Your task to perform on an android device: toggle location history Image 0: 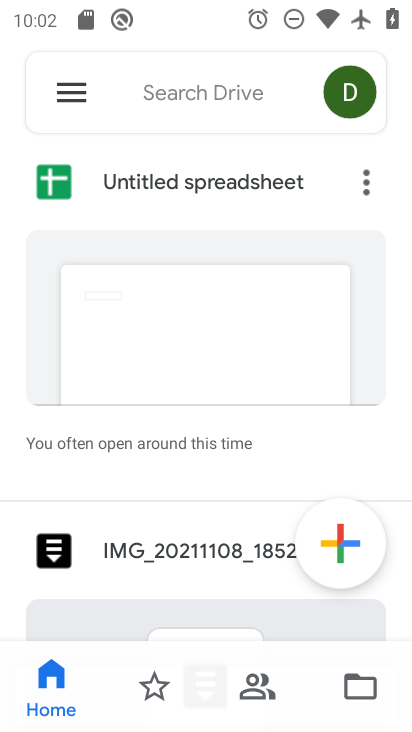
Step 0: press home button
Your task to perform on an android device: toggle location history Image 1: 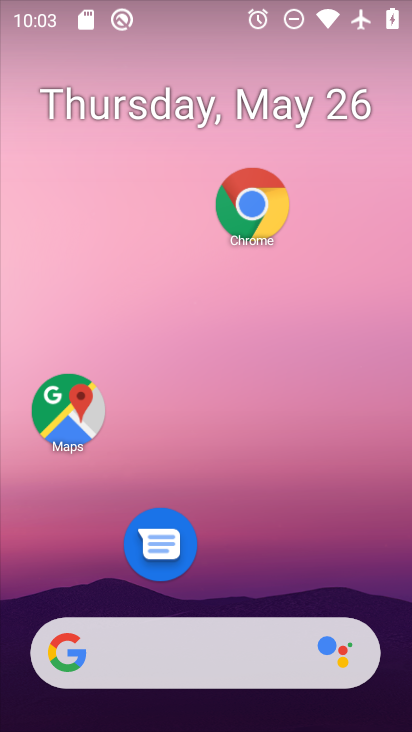
Step 1: drag from (216, 595) to (251, 44)
Your task to perform on an android device: toggle location history Image 2: 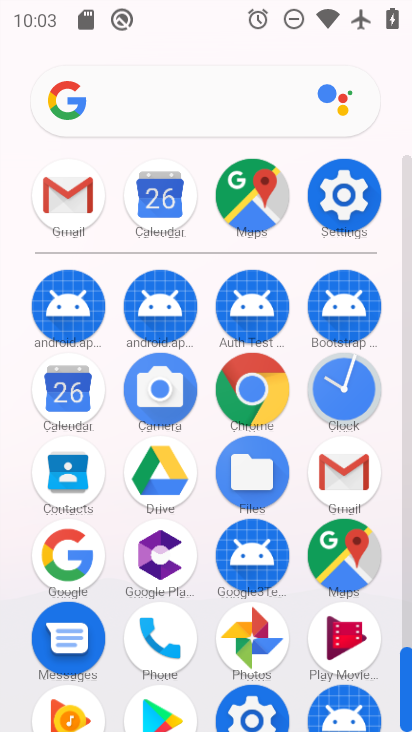
Step 2: click (344, 188)
Your task to perform on an android device: toggle location history Image 3: 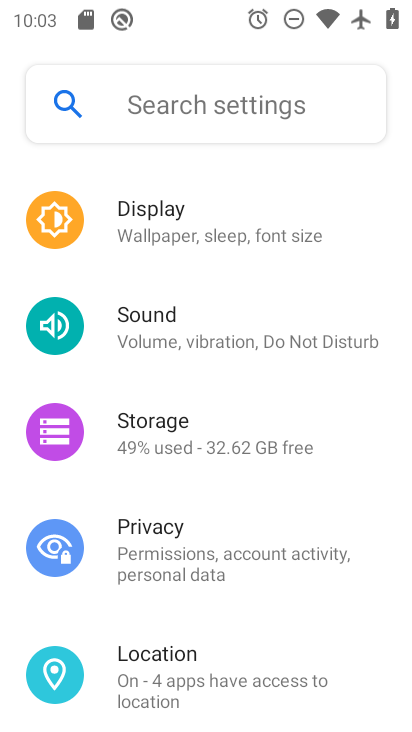
Step 3: click (220, 655)
Your task to perform on an android device: toggle location history Image 4: 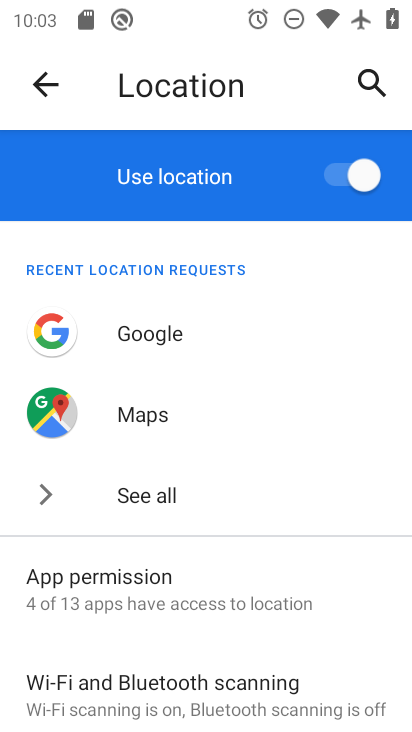
Step 4: drag from (225, 691) to (206, 193)
Your task to perform on an android device: toggle location history Image 5: 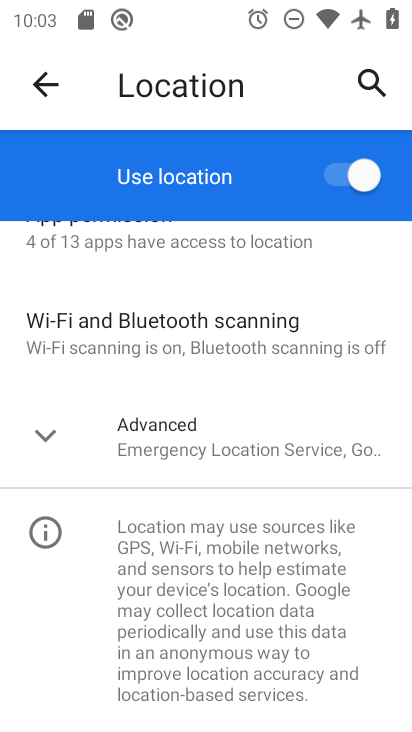
Step 5: click (51, 436)
Your task to perform on an android device: toggle location history Image 6: 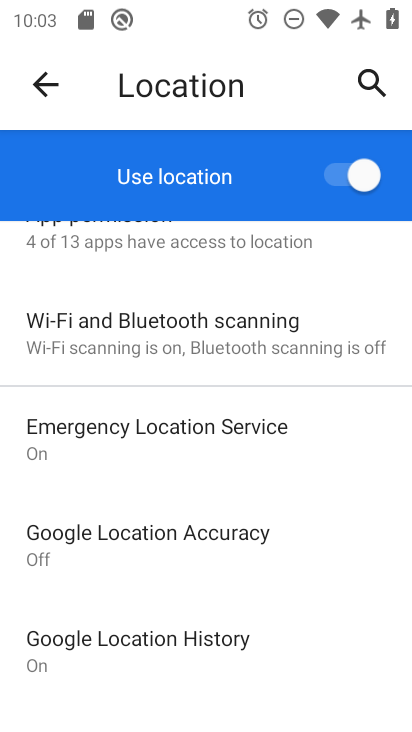
Step 6: click (103, 651)
Your task to perform on an android device: toggle location history Image 7: 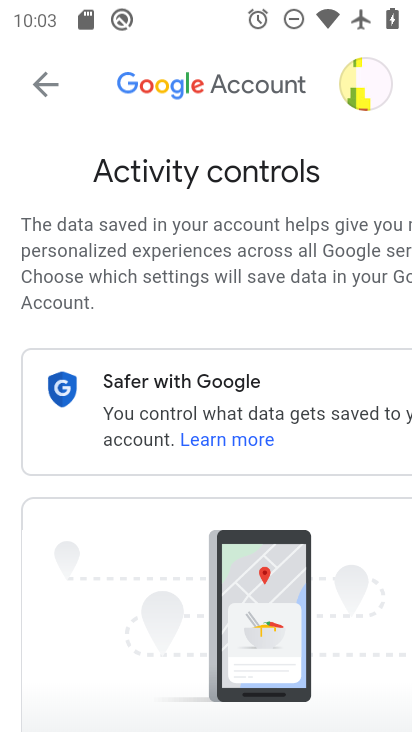
Step 7: drag from (155, 645) to (191, 210)
Your task to perform on an android device: toggle location history Image 8: 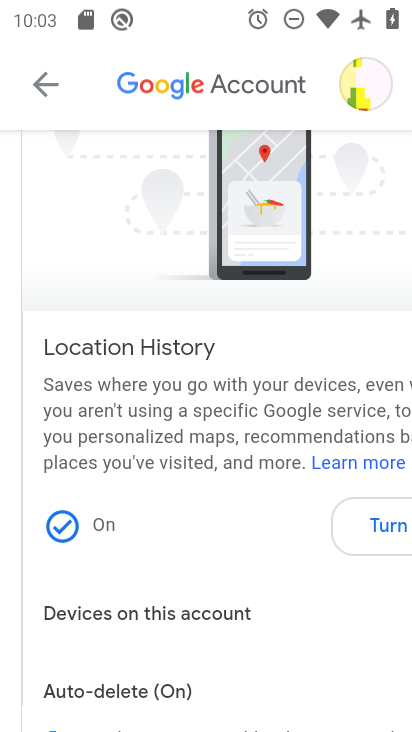
Step 8: click (388, 522)
Your task to perform on an android device: toggle location history Image 9: 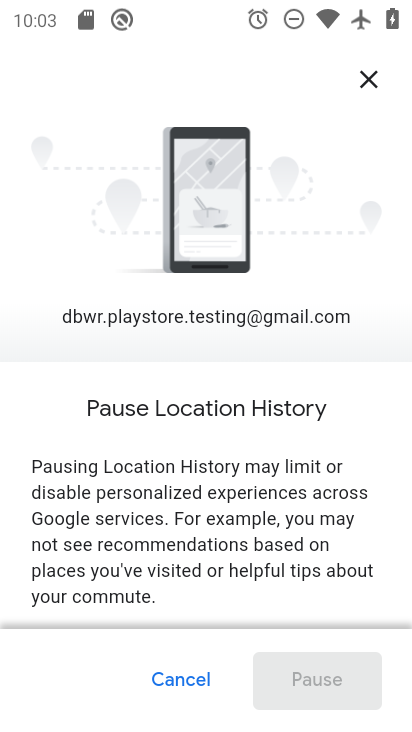
Step 9: drag from (296, 569) to (296, 93)
Your task to perform on an android device: toggle location history Image 10: 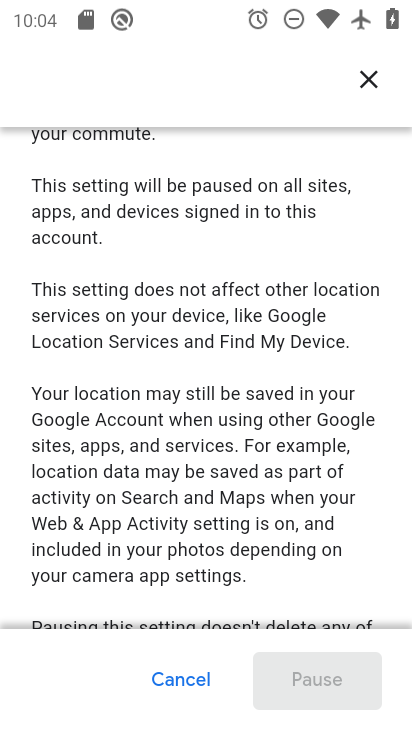
Step 10: drag from (262, 562) to (277, 110)
Your task to perform on an android device: toggle location history Image 11: 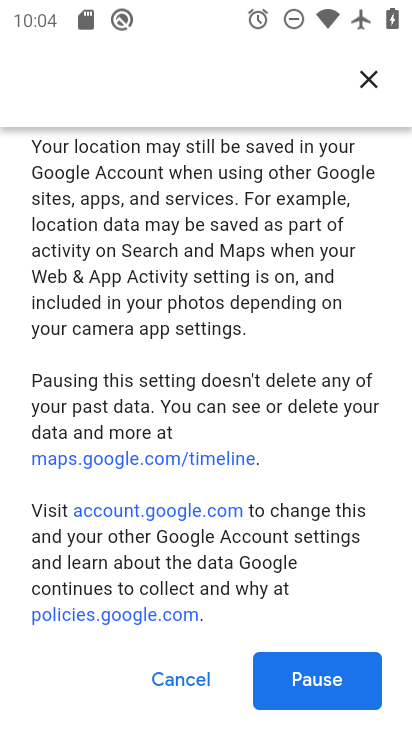
Step 11: click (316, 678)
Your task to perform on an android device: toggle location history Image 12: 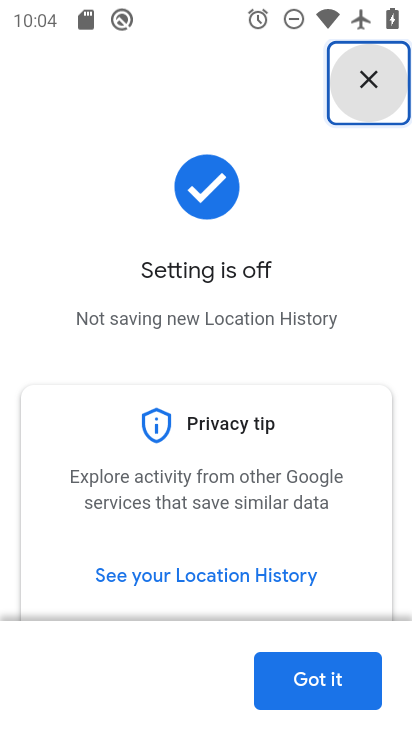
Step 12: task complete